Your task to perform on an android device: see sites visited before in the chrome app Image 0: 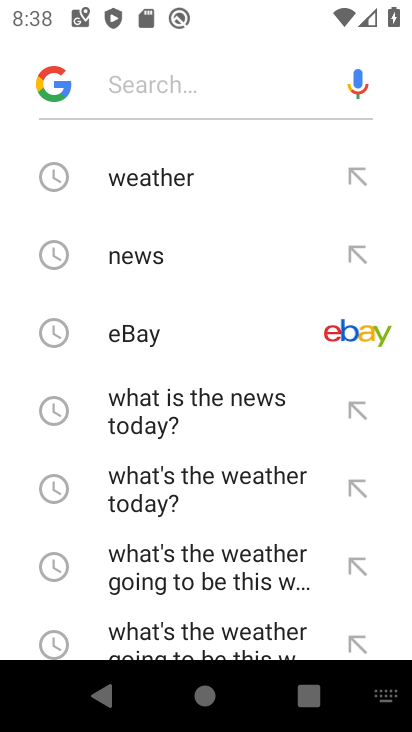
Step 0: press back button
Your task to perform on an android device: see sites visited before in the chrome app Image 1: 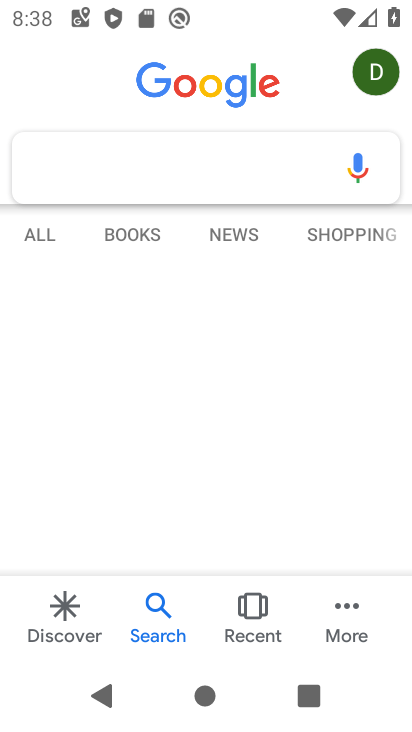
Step 1: press home button
Your task to perform on an android device: see sites visited before in the chrome app Image 2: 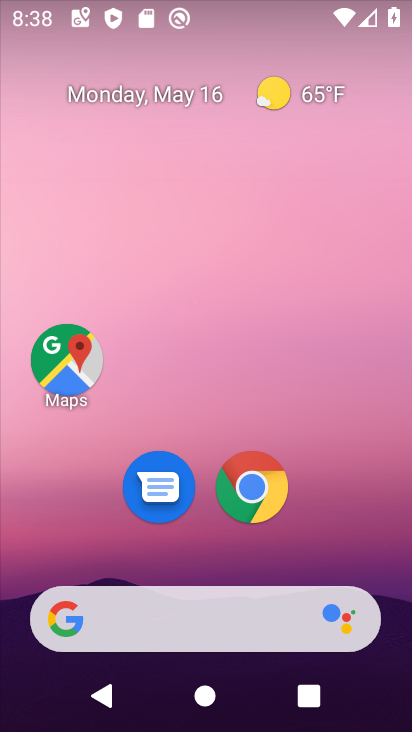
Step 2: drag from (370, 536) to (376, 244)
Your task to perform on an android device: see sites visited before in the chrome app Image 3: 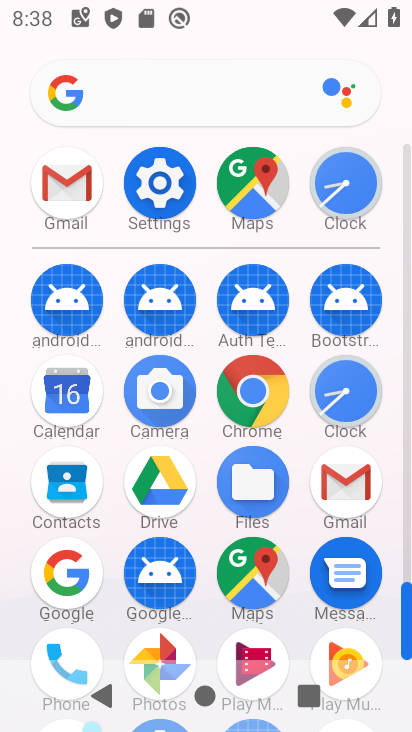
Step 3: click (273, 403)
Your task to perform on an android device: see sites visited before in the chrome app Image 4: 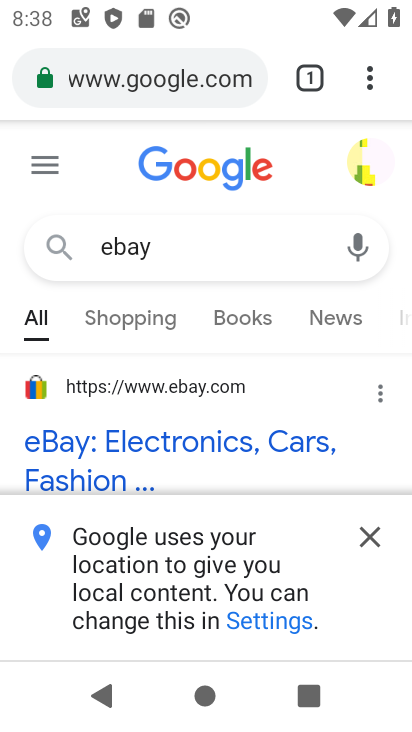
Step 4: click (372, 85)
Your task to perform on an android device: see sites visited before in the chrome app Image 5: 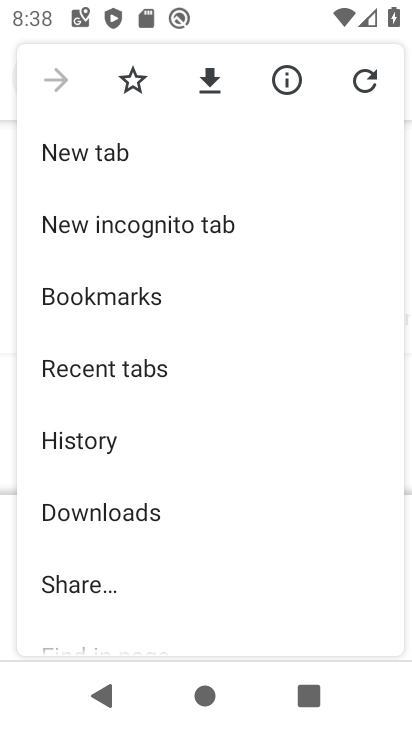
Step 5: drag from (346, 569) to (356, 377)
Your task to perform on an android device: see sites visited before in the chrome app Image 6: 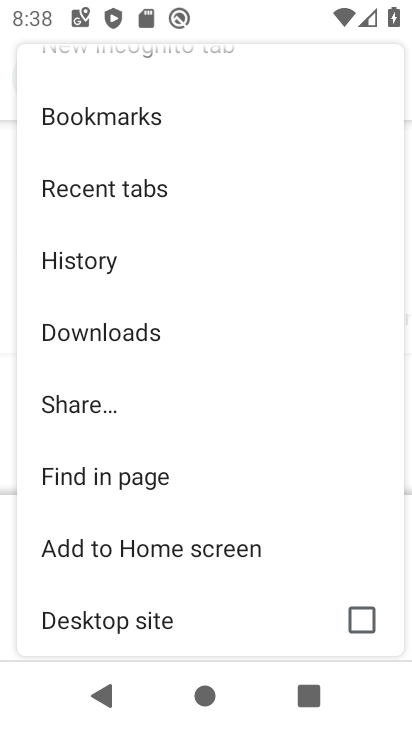
Step 6: drag from (290, 594) to (280, 413)
Your task to perform on an android device: see sites visited before in the chrome app Image 7: 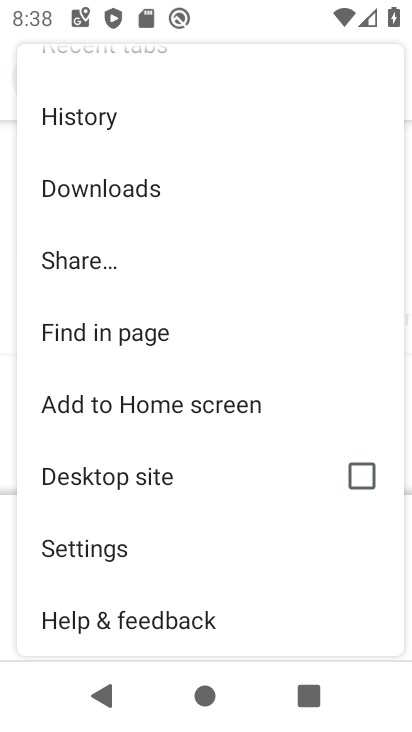
Step 7: drag from (261, 564) to (264, 363)
Your task to perform on an android device: see sites visited before in the chrome app Image 8: 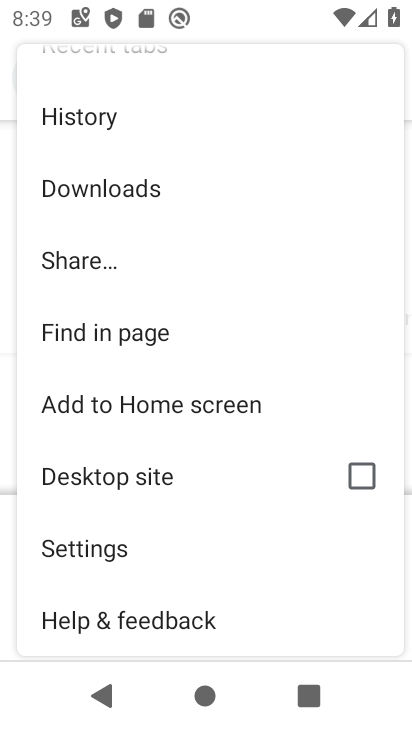
Step 8: drag from (258, 254) to (252, 445)
Your task to perform on an android device: see sites visited before in the chrome app Image 9: 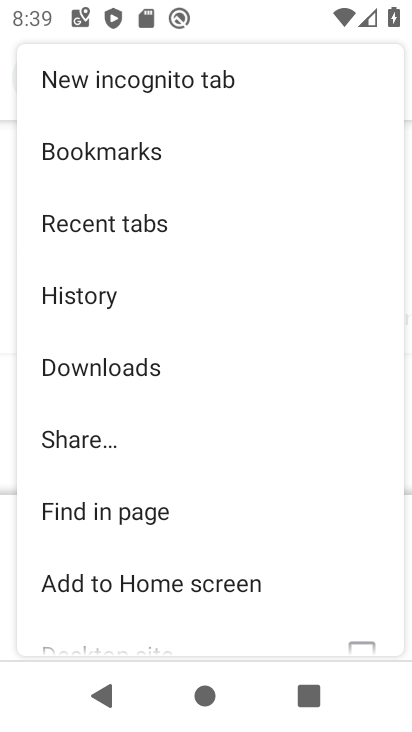
Step 9: drag from (254, 277) to (273, 395)
Your task to perform on an android device: see sites visited before in the chrome app Image 10: 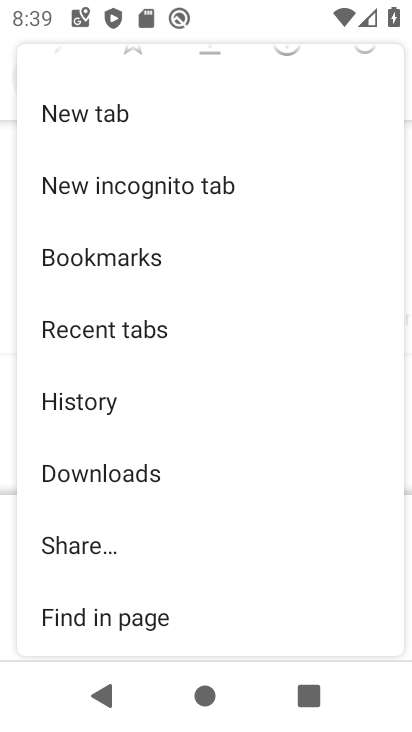
Step 10: drag from (276, 307) to (283, 420)
Your task to perform on an android device: see sites visited before in the chrome app Image 11: 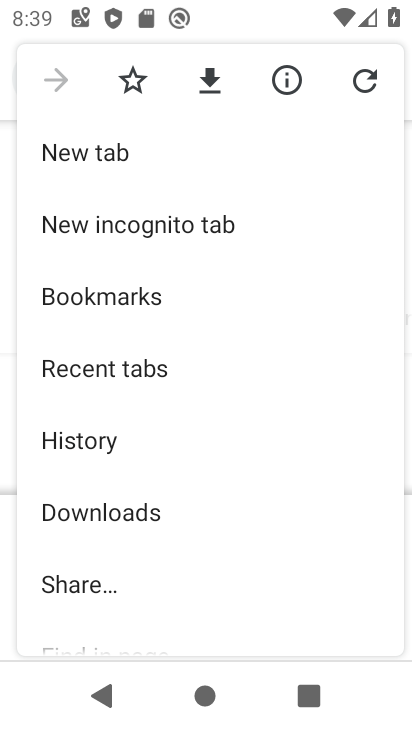
Step 11: click (104, 443)
Your task to perform on an android device: see sites visited before in the chrome app Image 12: 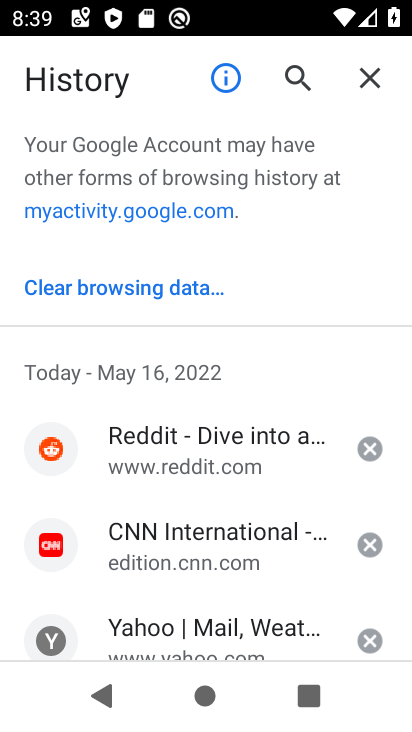
Step 12: task complete